Your task to perform on an android device: turn on notifications settings in the gmail app Image 0: 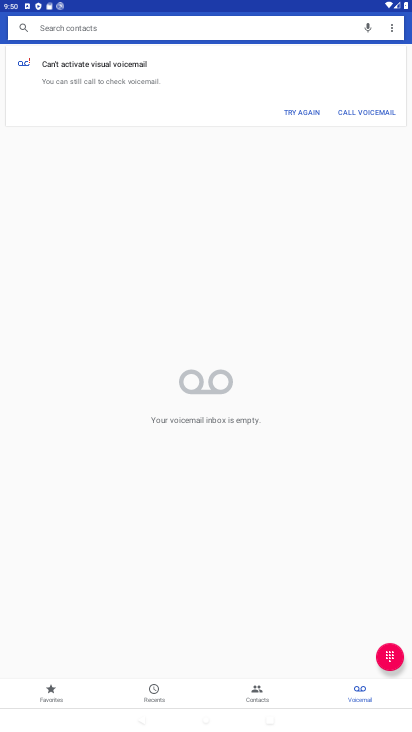
Step 0: press home button
Your task to perform on an android device: turn on notifications settings in the gmail app Image 1: 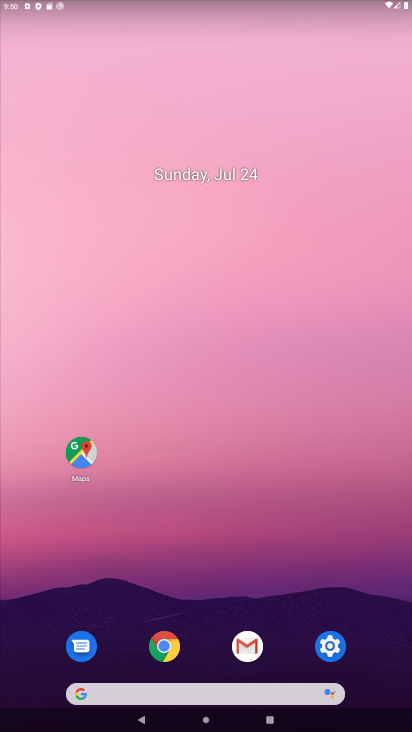
Step 1: click (323, 652)
Your task to perform on an android device: turn on notifications settings in the gmail app Image 2: 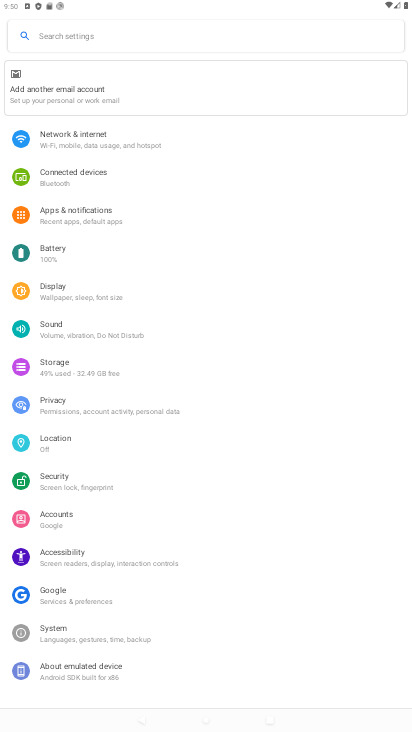
Step 2: press home button
Your task to perform on an android device: turn on notifications settings in the gmail app Image 3: 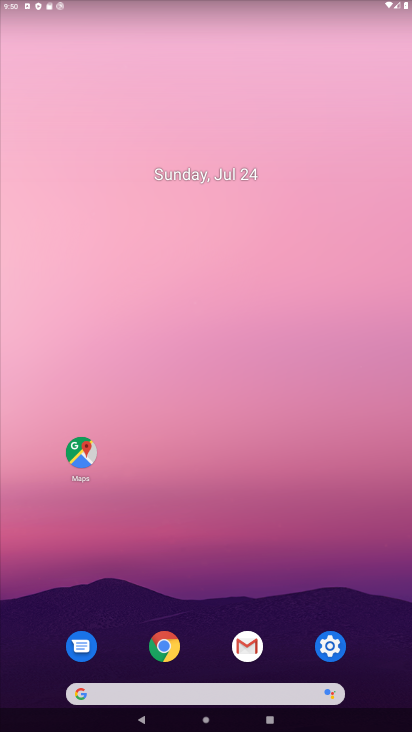
Step 3: click (257, 647)
Your task to perform on an android device: turn on notifications settings in the gmail app Image 4: 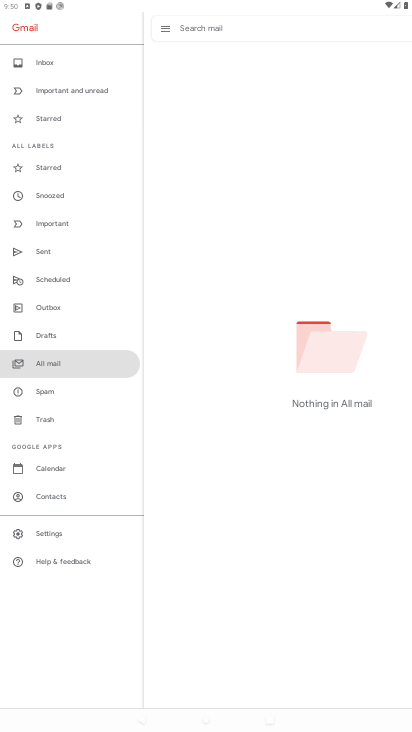
Step 4: click (65, 530)
Your task to perform on an android device: turn on notifications settings in the gmail app Image 5: 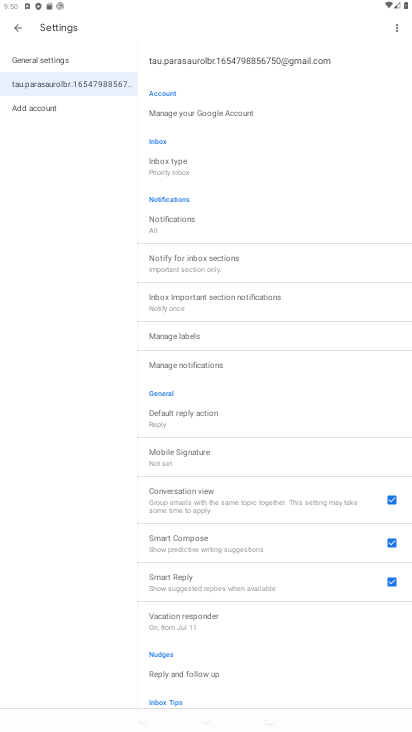
Step 5: click (197, 219)
Your task to perform on an android device: turn on notifications settings in the gmail app Image 6: 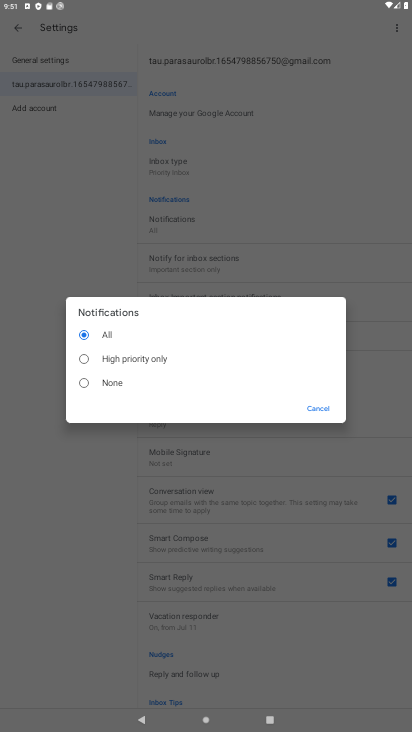
Step 6: task complete